Your task to perform on an android device: Open sound settings Image 0: 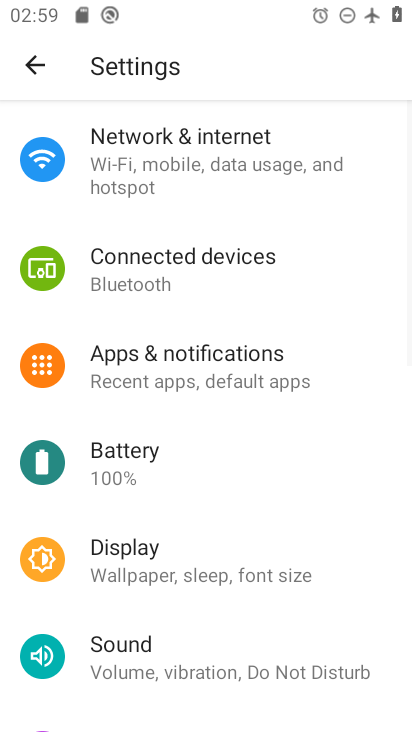
Step 0: click (142, 649)
Your task to perform on an android device: Open sound settings Image 1: 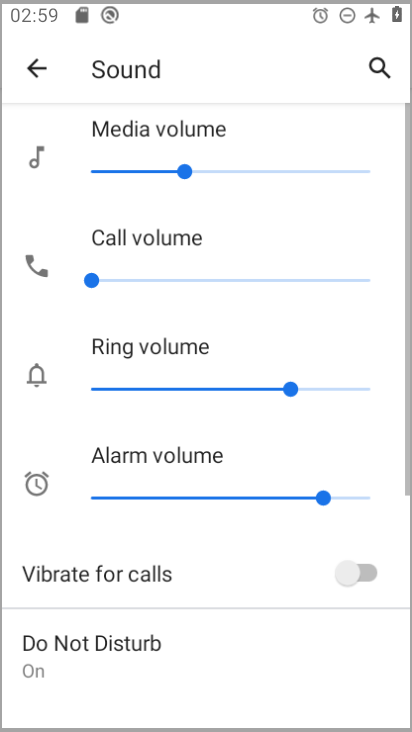
Step 1: task complete